Your task to perform on an android device: change alarm snooze length Image 0: 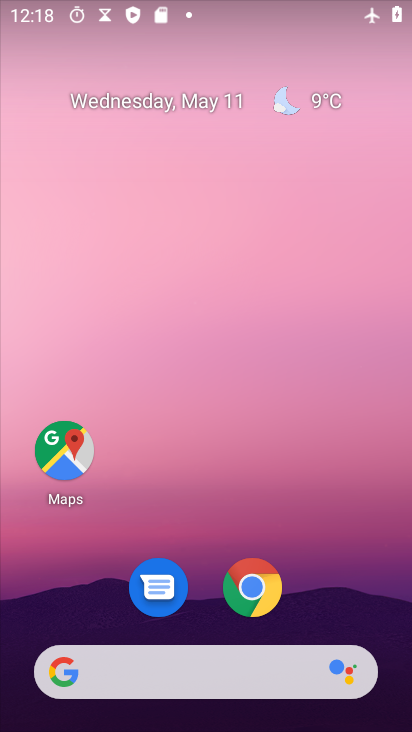
Step 0: drag from (326, 578) to (74, 69)
Your task to perform on an android device: change alarm snooze length Image 1: 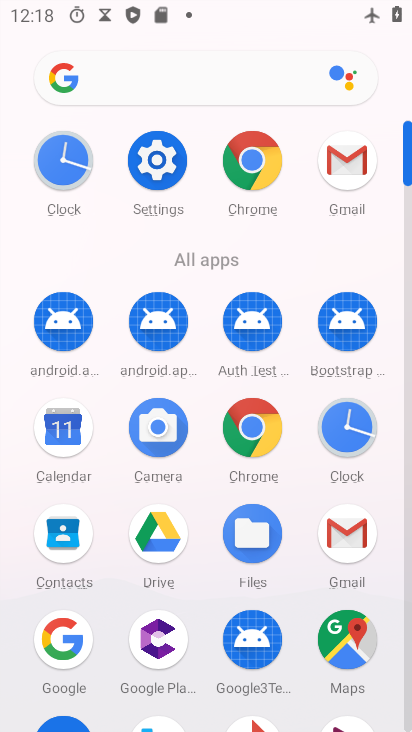
Step 1: click (142, 163)
Your task to perform on an android device: change alarm snooze length Image 2: 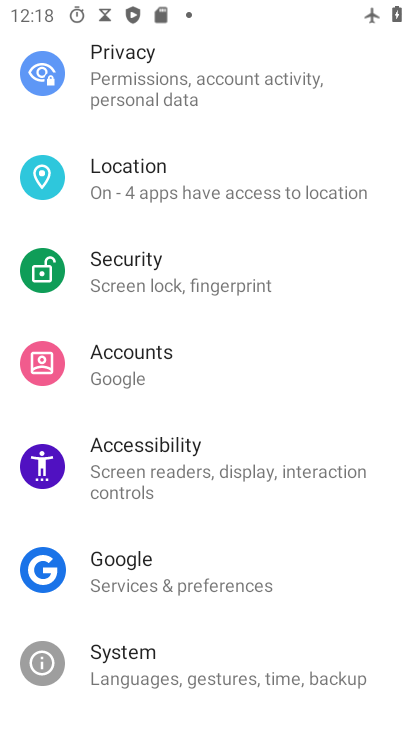
Step 2: drag from (197, 122) to (264, 362)
Your task to perform on an android device: change alarm snooze length Image 3: 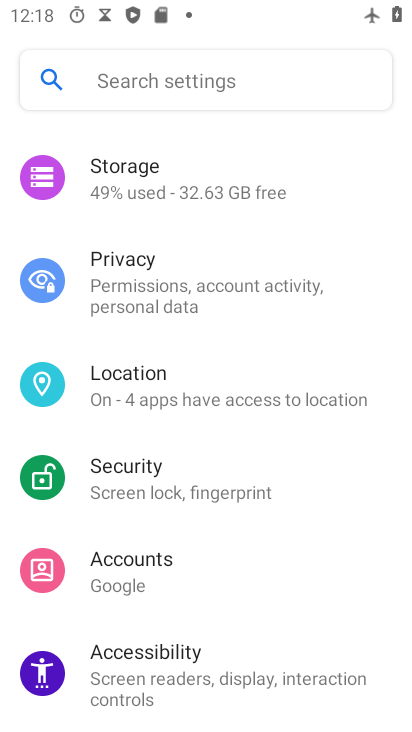
Step 3: drag from (168, 187) to (221, 425)
Your task to perform on an android device: change alarm snooze length Image 4: 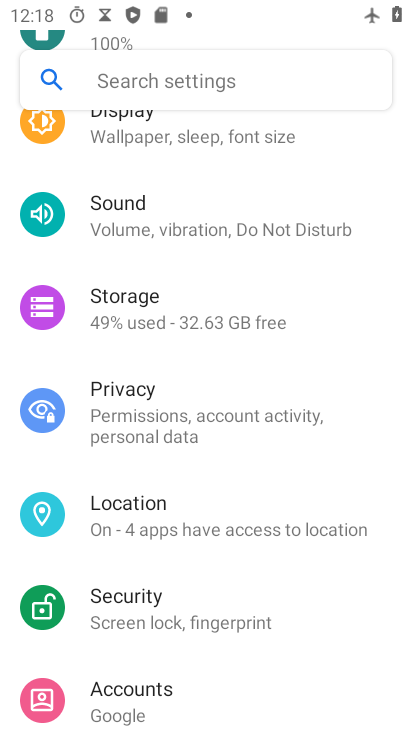
Step 4: drag from (197, 215) to (210, 459)
Your task to perform on an android device: change alarm snooze length Image 5: 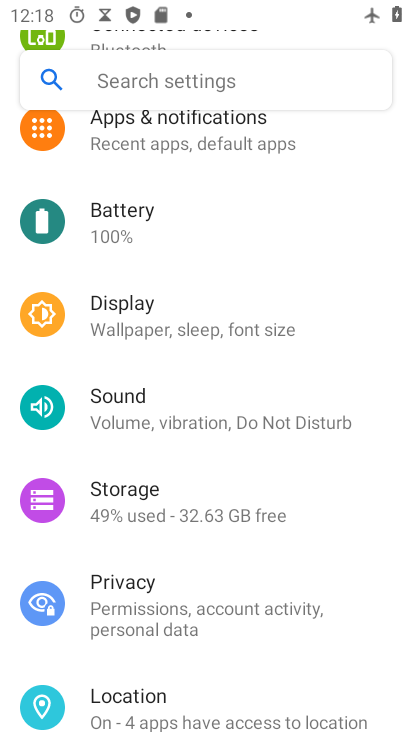
Step 5: drag from (186, 183) to (225, 420)
Your task to perform on an android device: change alarm snooze length Image 6: 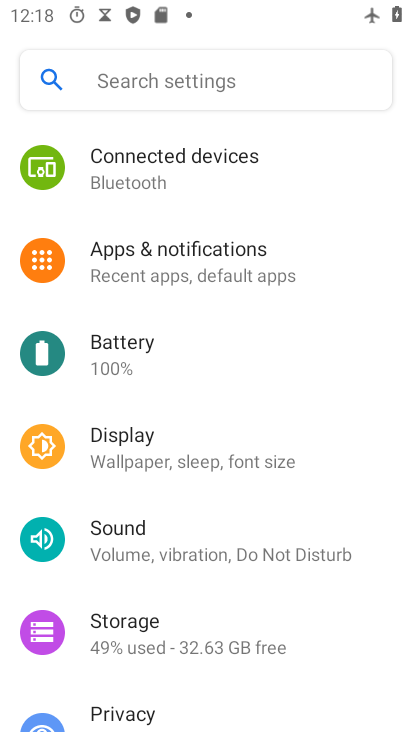
Step 6: drag from (133, 196) to (150, 383)
Your task to perform on an android device: change alarm snooze length Image 7: 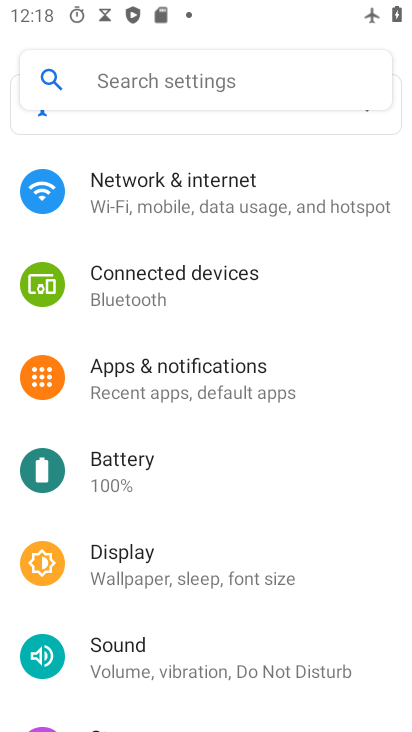
Step 7: drag from (172, 226) to (201, 393)
Your task to perform on an android device: change alarm snooze length Image 8: 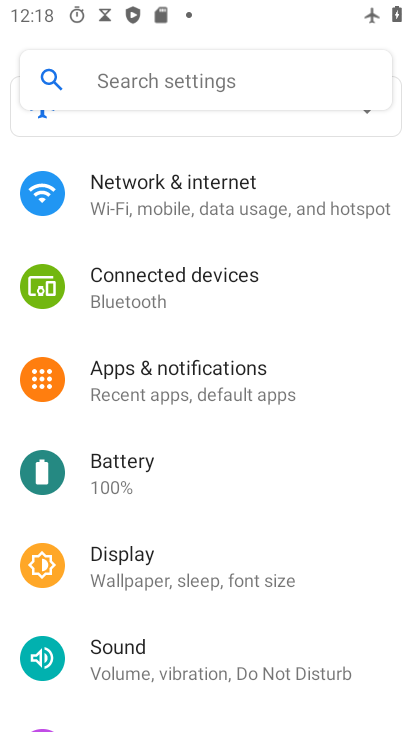
Step 8: click (172, 193)
Your task to perform on an android device: change alarm snooze length Image 9: 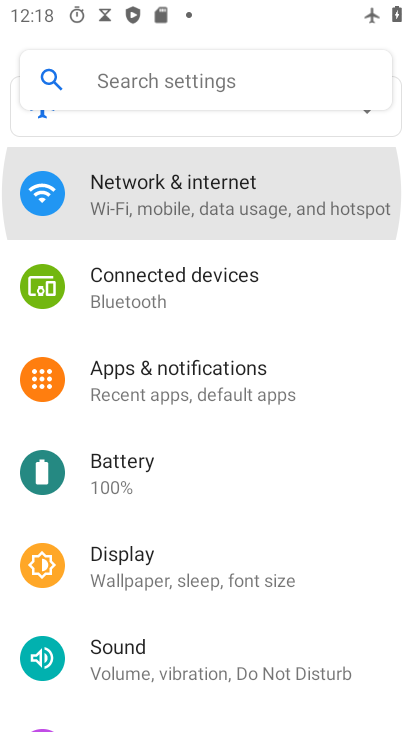
Step 9: click (172, 193)
Your task to perform on an android device: change alarm snooze length Image 10: 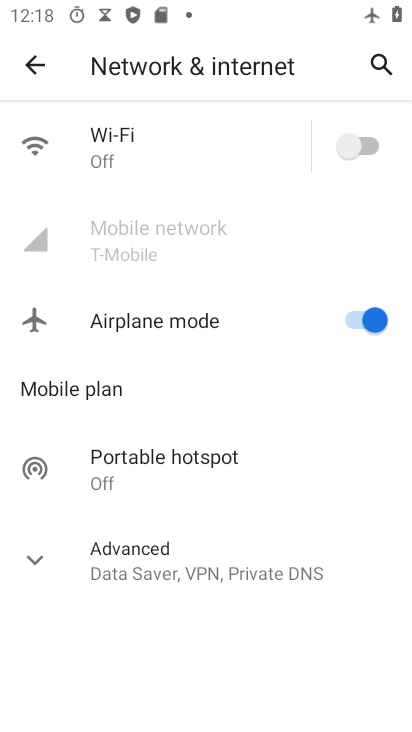
Step 10: click (373, 322)
Your task to perform on an android device: change alarm snooze length Image 11: 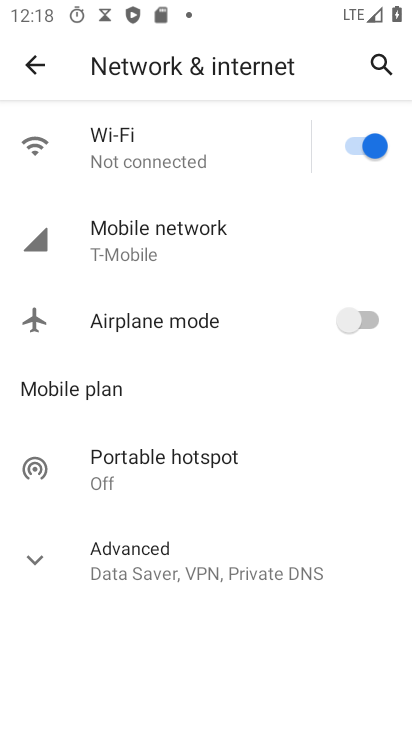
Step 11: press home button
Your task to perform on an android device: change alarm snooze length Image 12: 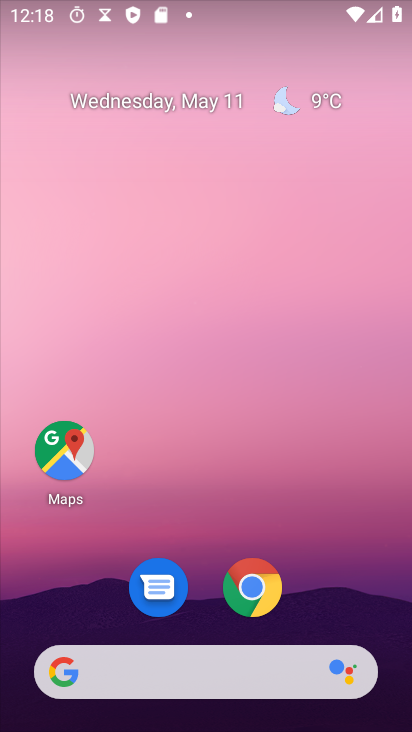
Step 12: drag from (360, 605) to (172, 16)
Your task to perform on an android device: change alarm snooze length Image 13: 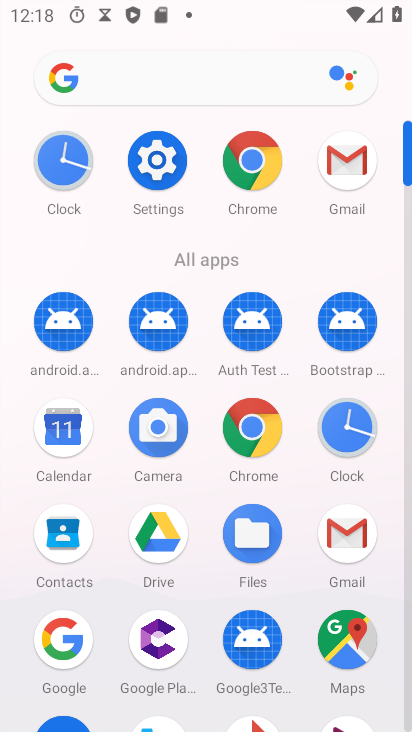
Step 13: click (347, 422)
Your task to perform on an android device: change alarm snooze length Image 14: 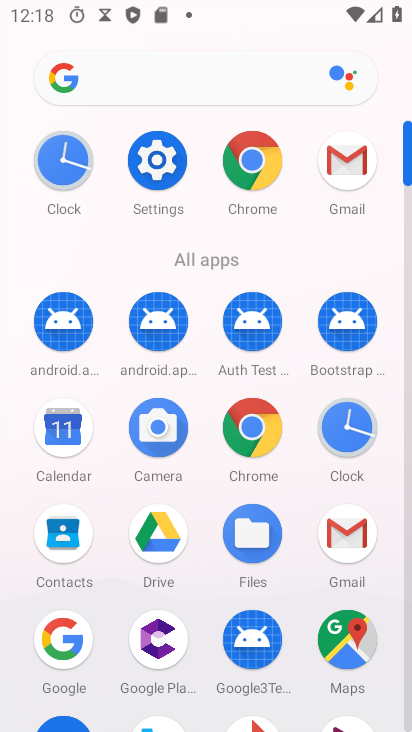
Step 14: click (346, 422)
Your task to perform on an android device: change alarm snooze length Image 15: 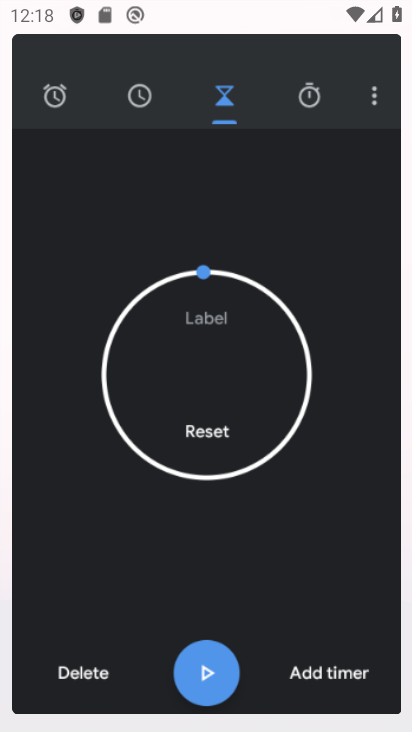
Step 15: click (341, 404)
Your task to perform on an android device: change alarm snooze length Image 16: 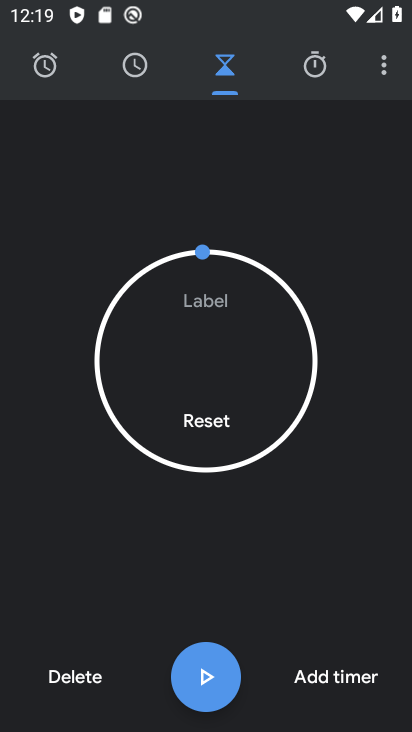
Step 16: click (380, 61)
Your task to perform on an android device: change alarm snooze length Image 17: 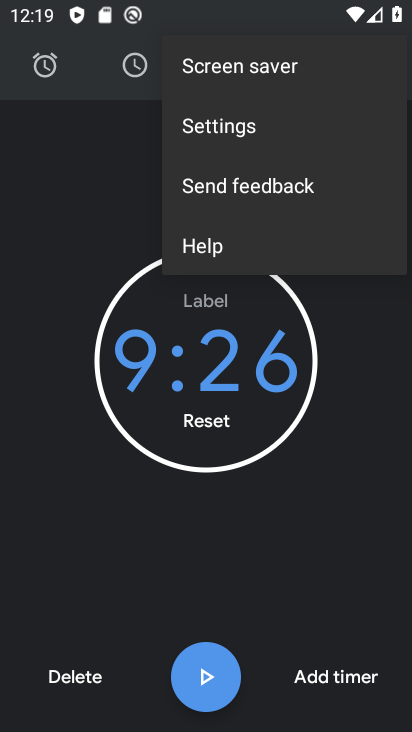
Step 17: click (209, 129)
Your task to perform on an android device: change alarm snooze length Image 18: 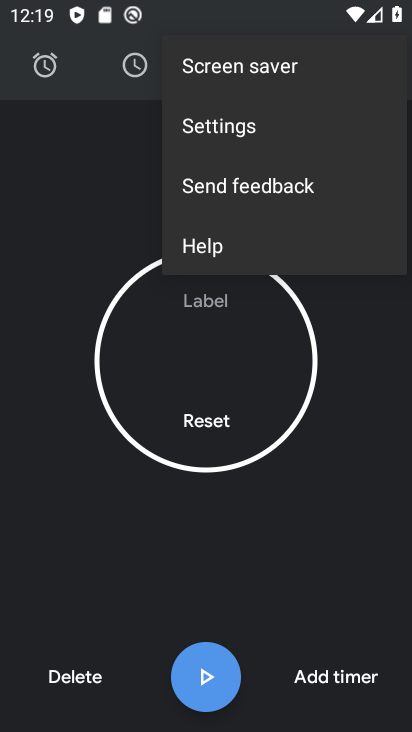
Step 18: click (209, 129)
Your task to perform on an android device: change alarm snooze length Image 19: 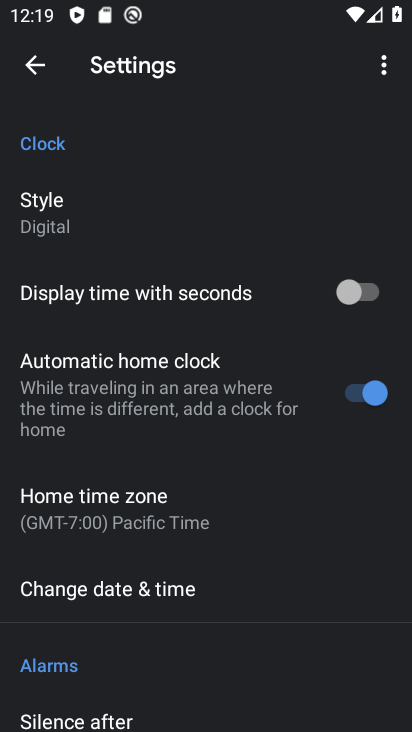
Step 19: drag from (178, 639) to (140, 313)
Your task to perform on an android device: change alarm snooze length Image 20: 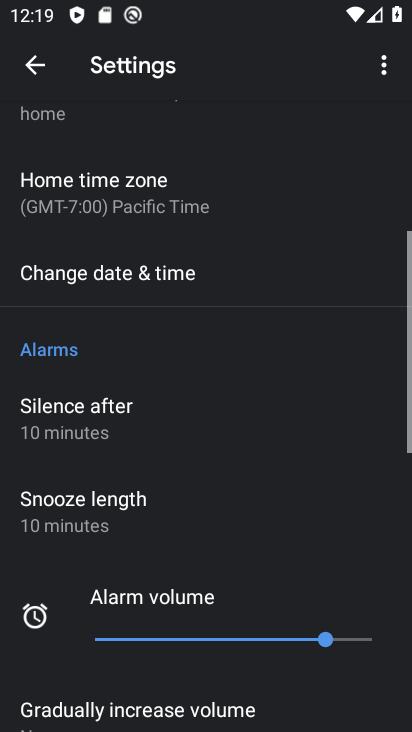
Step 20: drag from (220, 537) to (151, 163)
Your task to perform on an android device: change alarm snooze length Image 21: 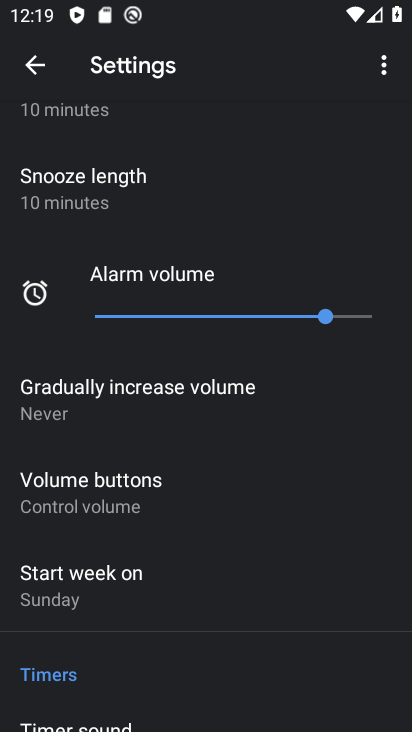
Step 21: click (63, 204)
Your task to perform on an android device: change alarm snooze length Image 22: 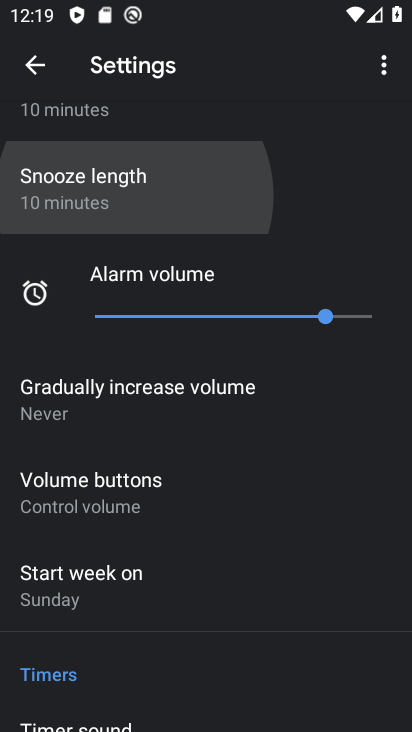
Step 22: click (65, 202)
Your task to perform on an android device: change alarm snooze length Image 23: 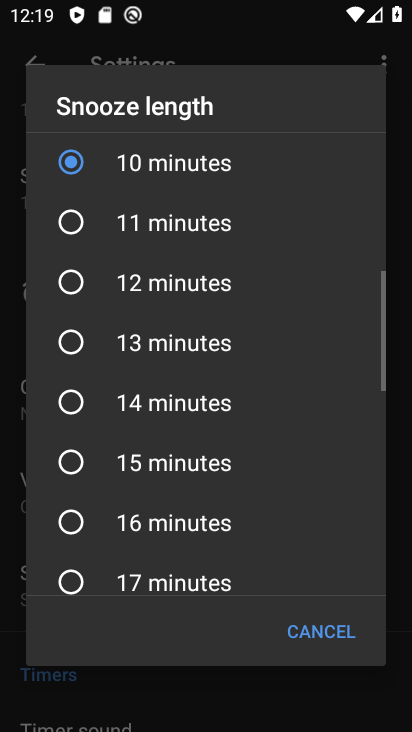
Step 23: click (68, 278)
Your task to perform on an android device: change alarm snooze length Image 24: 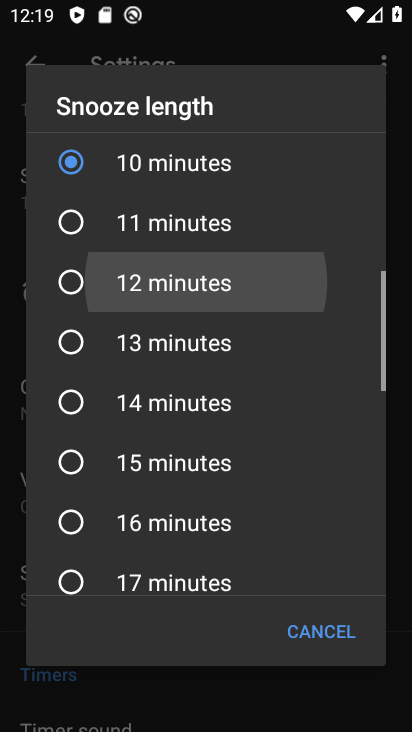
Step 24: click (69, 277)
Your task to perform on an android device: change alarm snooze length Image 25: 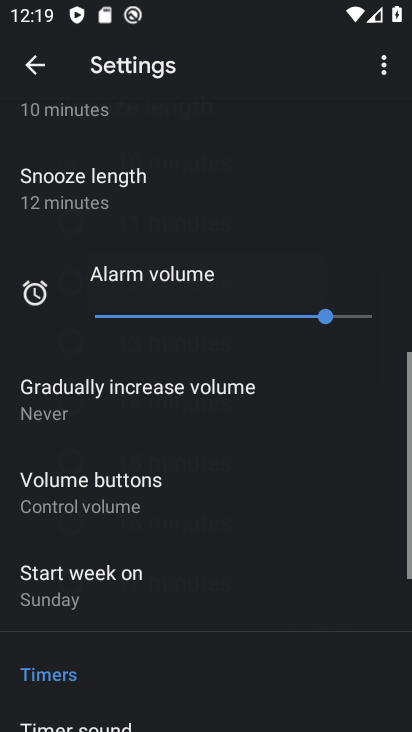
Step 25: click (70, 275)
Your task to perform on an android device: change alarm snooze length Image 26: 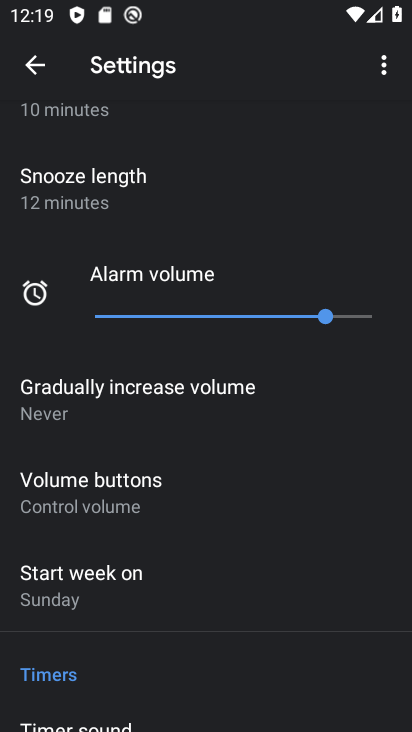
Step 26: task complete